Your task to perform on an android device: turn off smart reply in the gmail app Image 0: 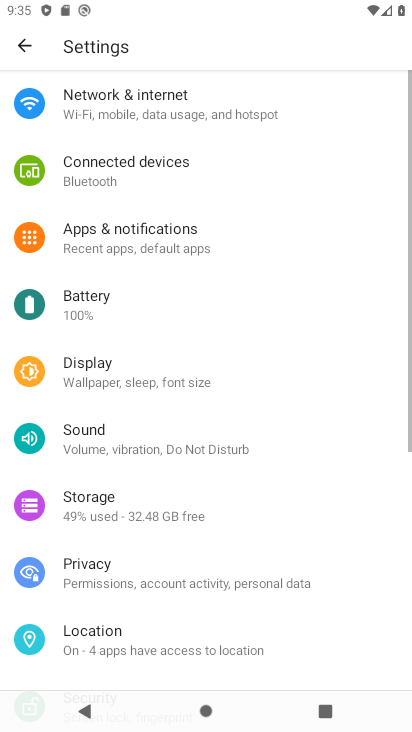
Step 0: press home button
Your task to perform on an android device: turn off smart reply in the gmail app Image 1: 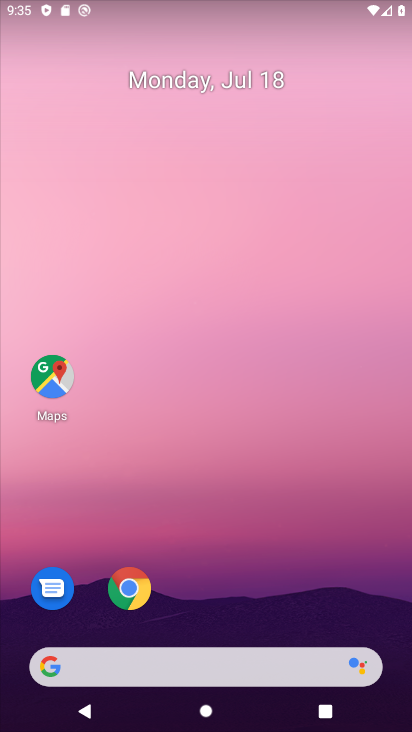
Step 1: drag from (319, 599) to (232, 184)
Your task to perform on an android device: turn off smart reply in the gmail app Image 2: 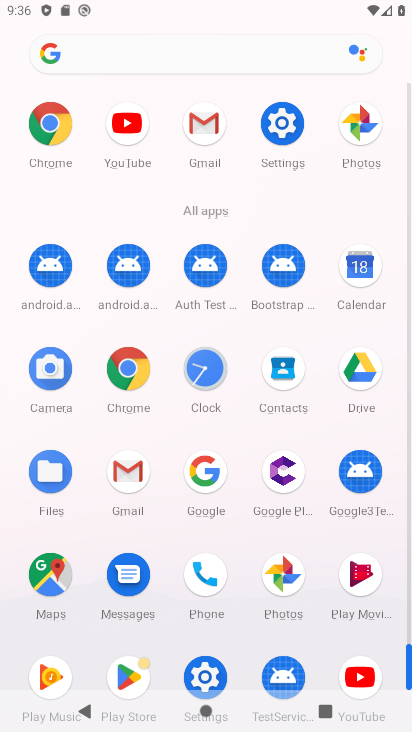
Step 2: click (134, 473)
Your task to perform on an android device: turn off smart reply in the gmail app Image 3: 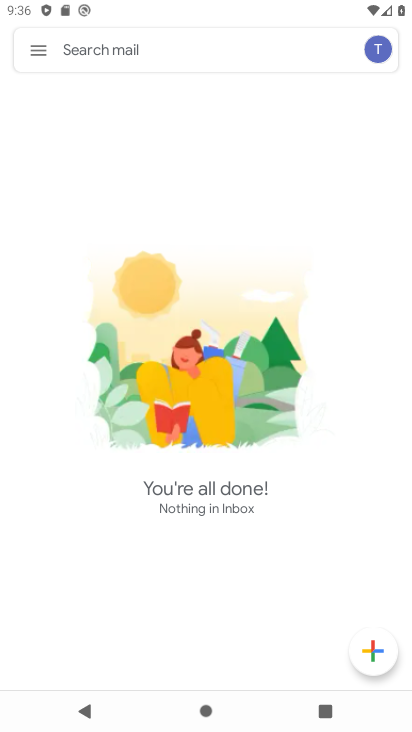
Step 3: click (29, 53)
Your task to perform on an android device: turn off smart reply in the gmail app Image 4: 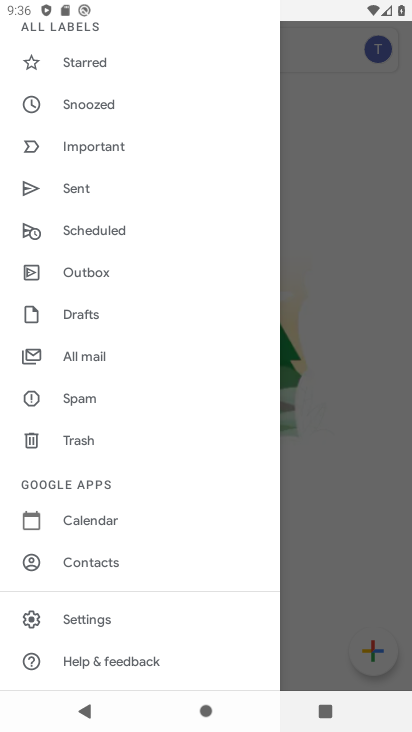
Step 4: click (117, 615)
Your task to perform on an android device: turn off smart reply in the gmail app Image 5: 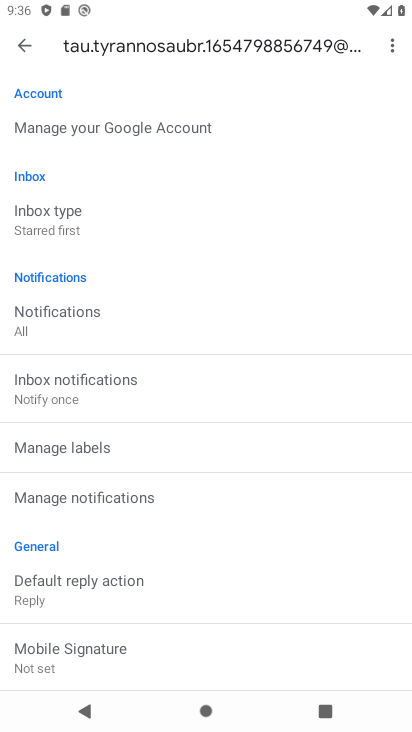
Step 5: drag from (200, 498) to (145, 289)
Your task to perform on an android device: turn off smart reply in the gmail app Image 6: 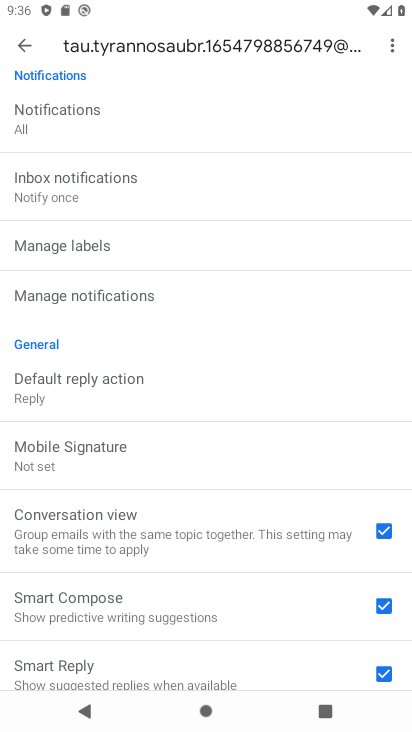
Step 6: click (385, 675)
Your task to perform on an android device: turn off smart reply in the gmail app Image 7: 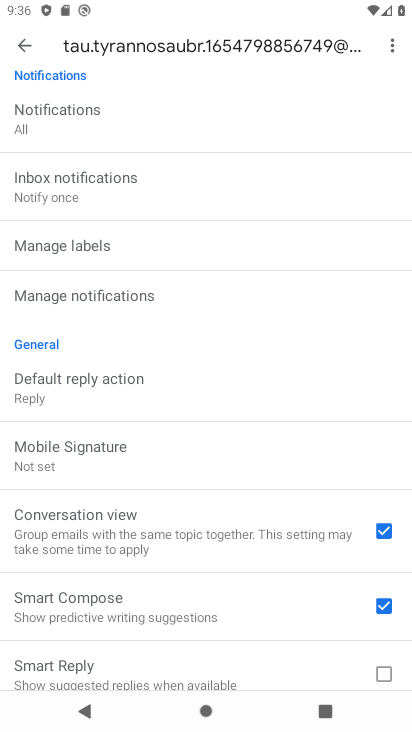
Step 7: task complete